Your task to perform on an android device: set default search engine in the chrome app Image 0: 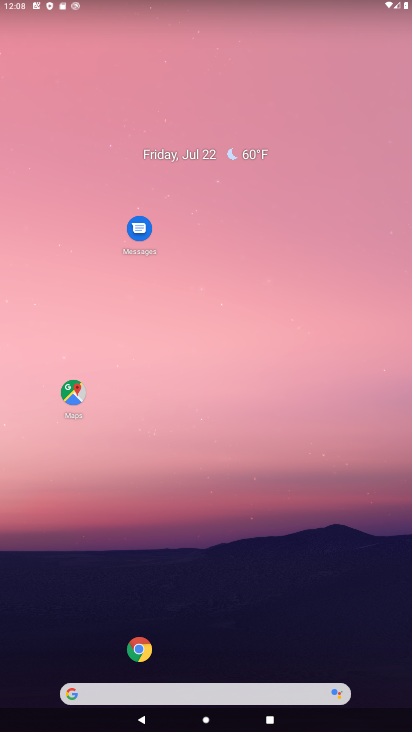
Step 0: click (153, 640)
Your task to perform on an android device: set default search engine in the chrome app Image 1: 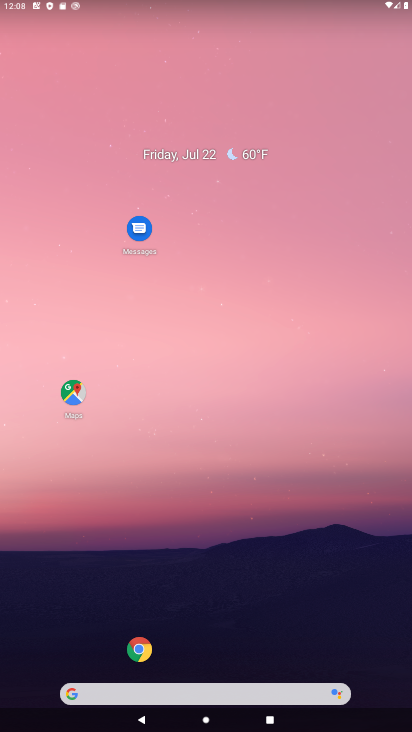
Step 1: click (143, 648)
Your task to perform on an android device: set default search engine in the chrome app Image 2: 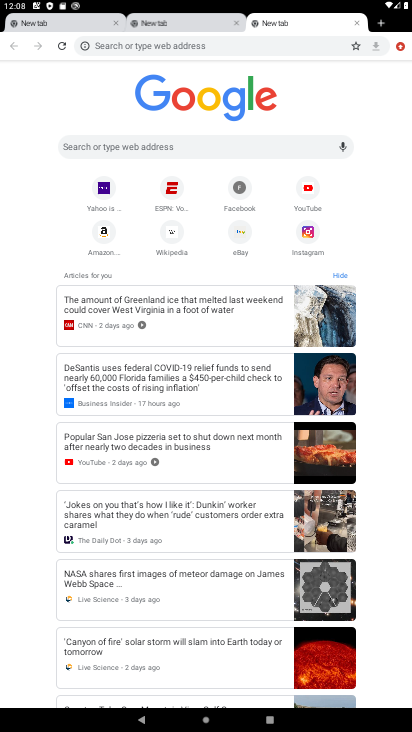
Step 2: click (115, 196)
Your task to perform on an android device: set default search engine in the chrome app Image 3: 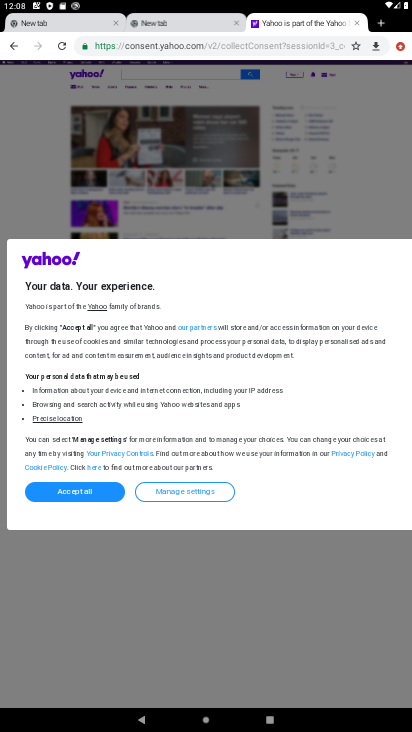
Step 3: click (398, 49)
Your task to perform on an android device: set default search engine in the chrome app Image 4: 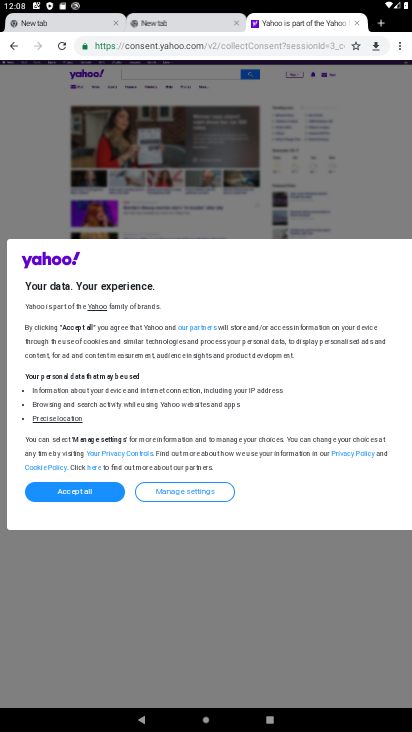
Step 4: click (398, 36)
Your task to perform on an android device: set default search engine in the chrome app Image 5: 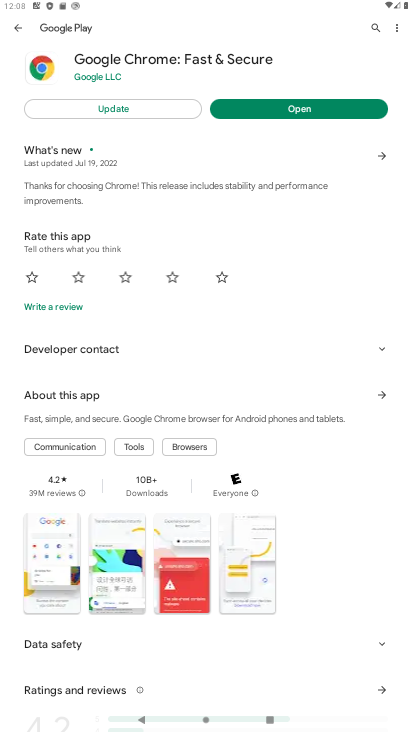
Step 5: task complete